Your task to perform on an android device: Go to Yahoo.com Image 0: 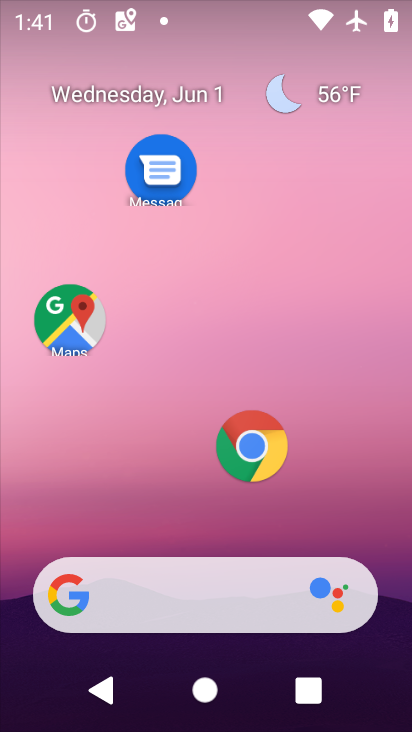
Step 0: drag from (177, 513) to (258, 176)
Your task to perform on an android device: Go to Yahoo.com Image 1: 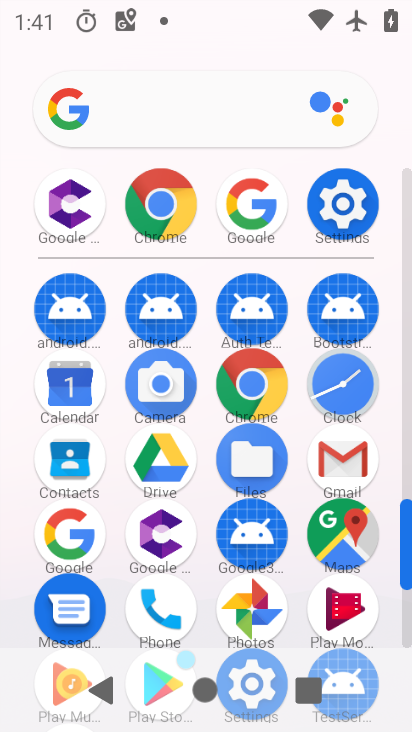
Step 1: drag from (208, 270) to (213, 145)
Your task to perform on an android device: Go to Yahoo.com Image 2: 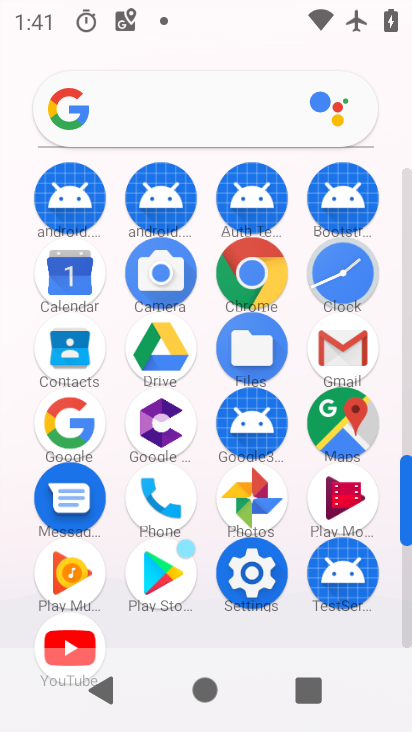
Step 2: click (238, 586)
Your task to perform on an android device: Go to Yahoo.com Image 3: 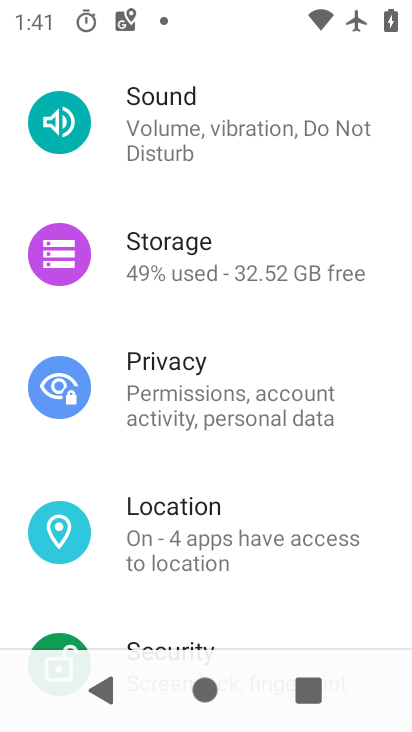
Step 3: press home button
Your task to perform on an android device: Go to Yahoo.com Image 4: 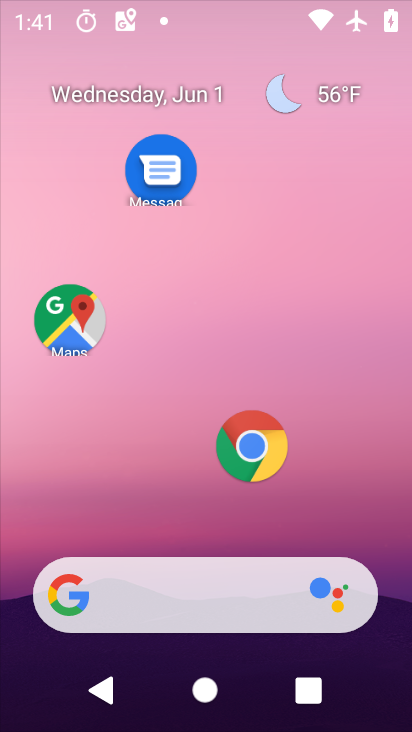
Step 4: drag from (254, 543) to (267, 114)
Your task to perform on an android device: Go to Yahoo.com Image 5: 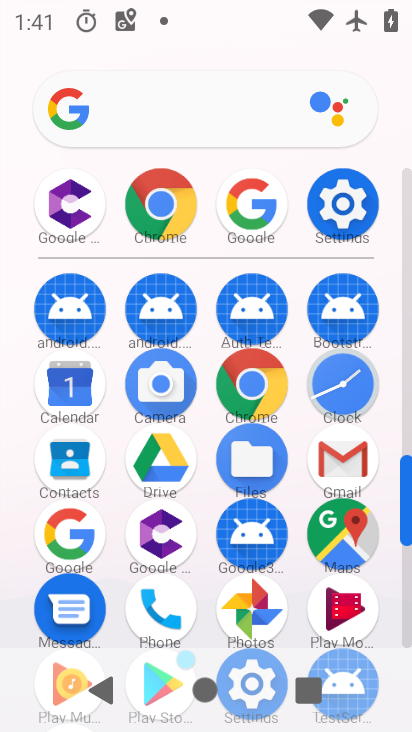
Step 5: click (256, 385)
Your task to perform on an android device: Go to Yahoo.com Image 6: 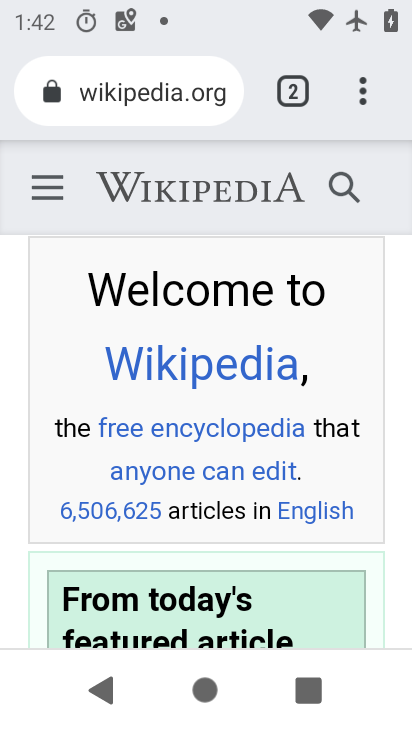
Step 6: click (306, 88)
Your task to perform on an android device: Go to Yahoo.com Image 7: 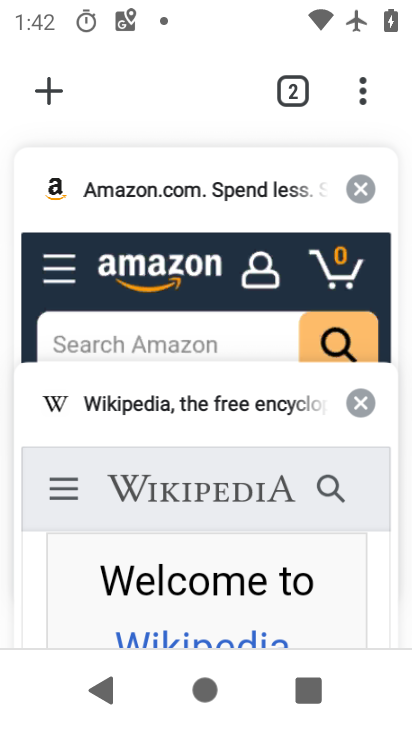
Step 7: click (56, 106)
Your task to perform on an android device: Go to Yahoo.com Image 8: 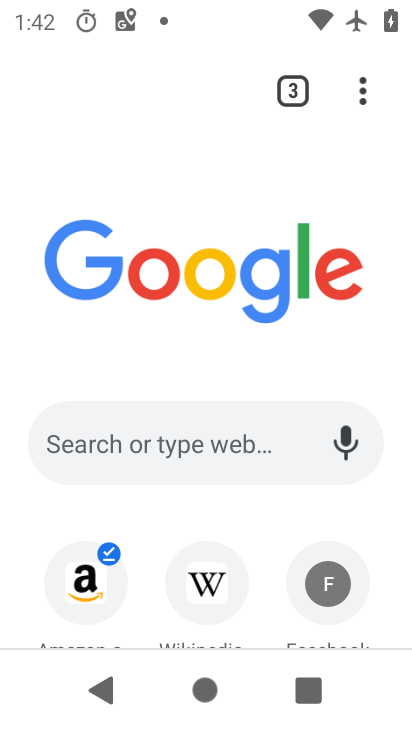
Step 8: drag from (261, 487) to (276, 193)
Your task to perform on an android device: Go to Yahoo.com Image 9: 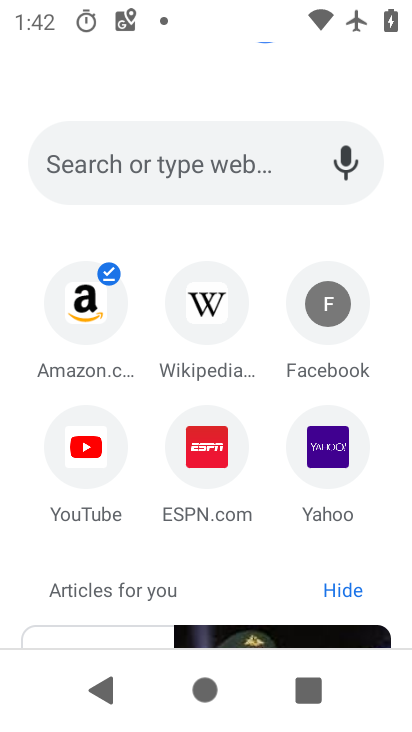
Step 9: click (335, 484)
Your task to perform on an android device: Go to Yahoo.com Image 10: 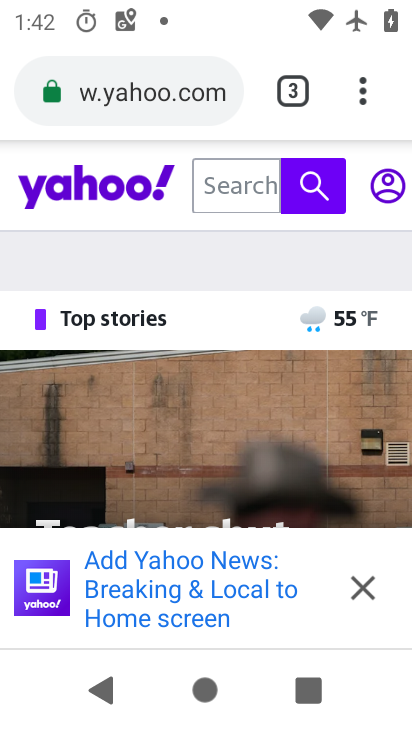
Step 10: click (361, 588)
Your task to perform on an android device: Go to Yahoo.com Image 11: 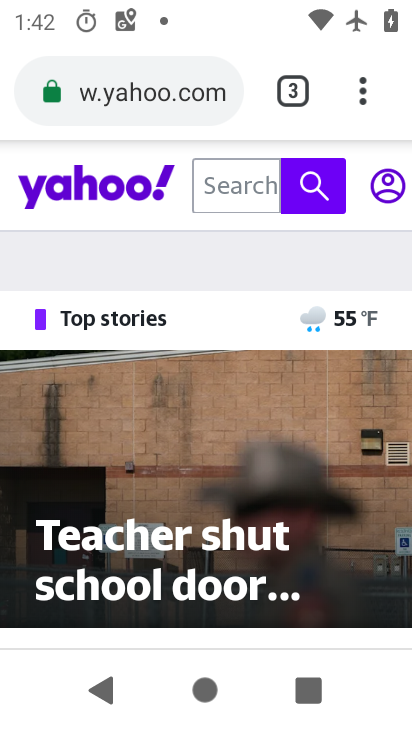
Step 11: task complete